Your task to perform on an android device: Open sound settings Image 0: 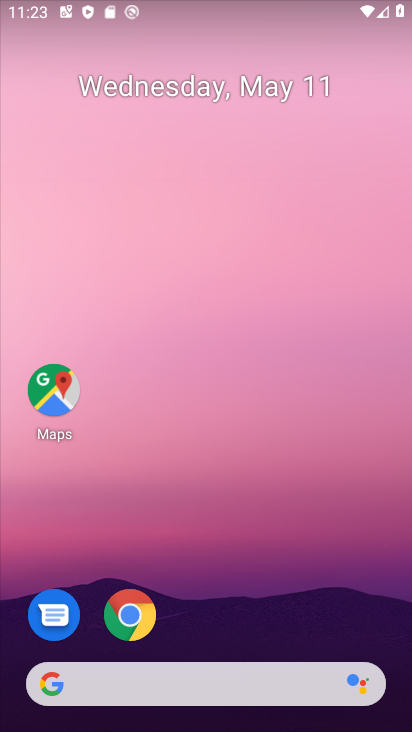
Step 0: drag from (272, 548) to (248, 123)
Your task to perform on an android device: Open sound settings Image 1: 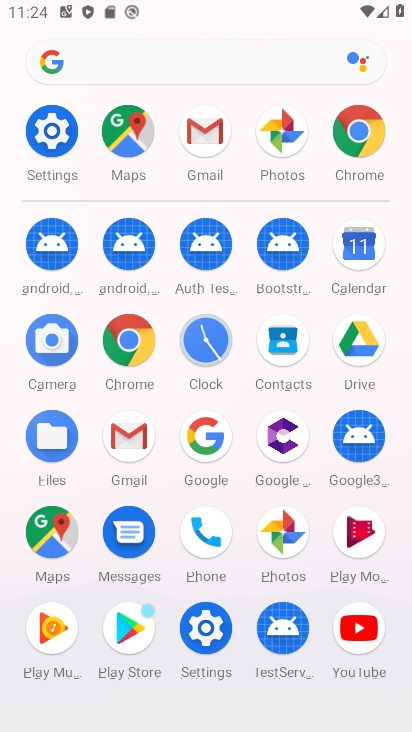
Step 1: click (41, 131)
Your task to perform on an android device: Open sound settings Image 2: 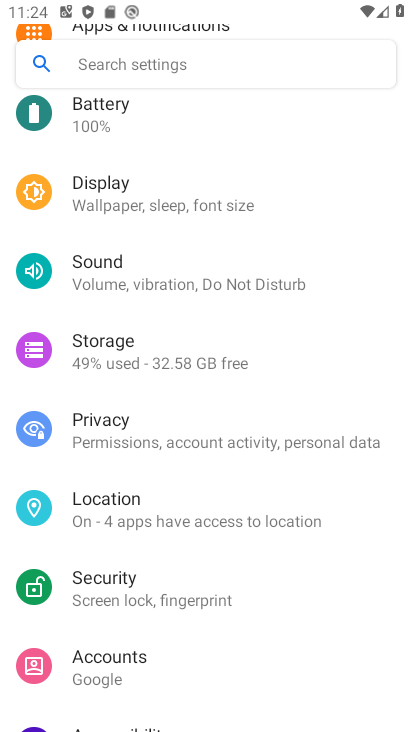
Step 2: drag from (174, 511) to (117, 272)
Your task to perform on an android device: Open sound settings Image 3: 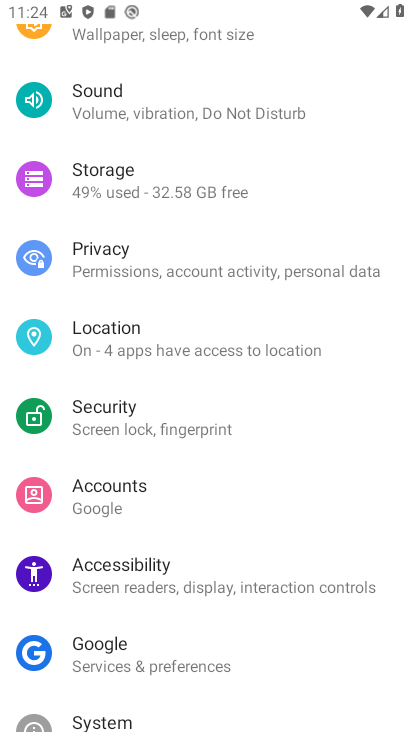
Step 3: click (108, 82)
Your task to perform on an android device: Open sound settings Image 4: 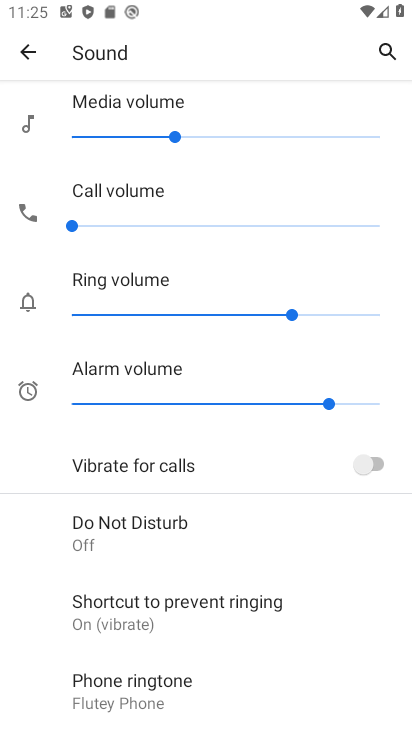
Step 4: task complete